Your task to perform on an android device: Show me productivity apps on the Play Store Image 0: 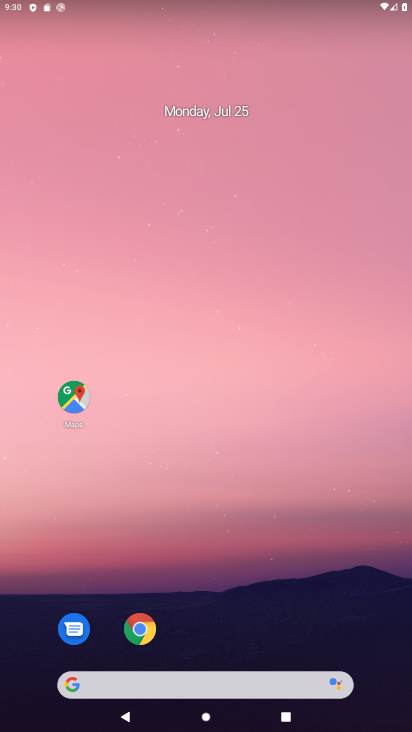
Step 0: drag from (287, 606) to (247, 17)
Your task to perform on an android device: Show me productivity apps on the Play Store Image 1: 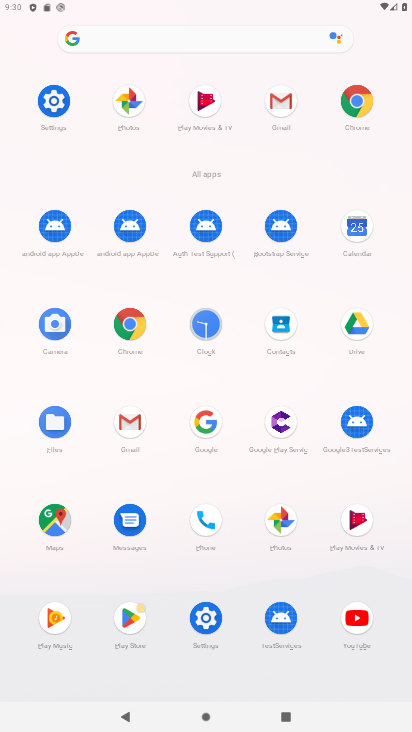
Step 1: click (128, 624)
Your task to perform on an android device: Show me productivity apps on the Play Store Image 2: 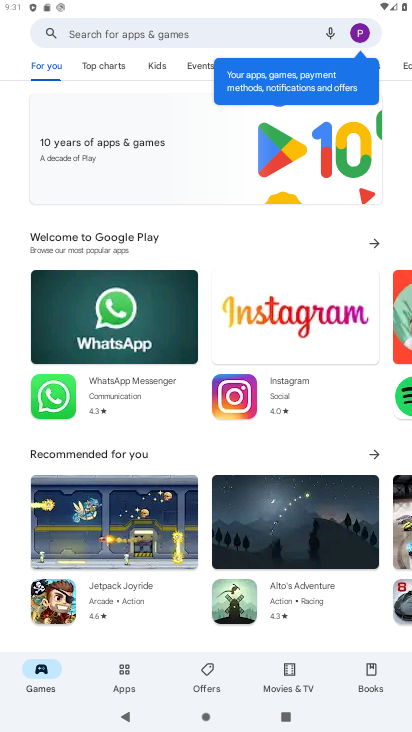
Step 2: click (109, 675)
Your task to perform on an android device: Show me productivity apps on the Play Store Image 3: 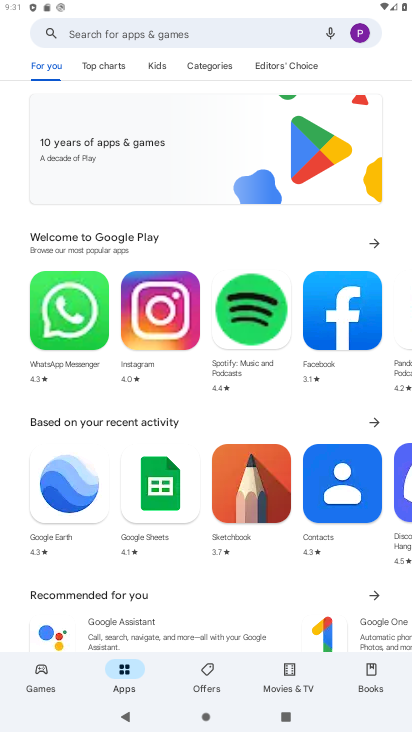
Step 3: task complete